Your task to perform on an android device: toggle priority inbox in the gmail app Image 0: 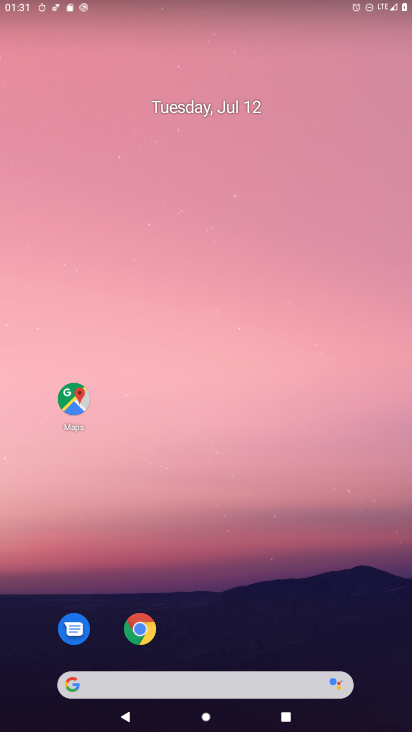
Step 0: drag from (25, 727) to (146, 2)
Your task to perform on an android device: toggle priority inbox in the gmail app Image 1: 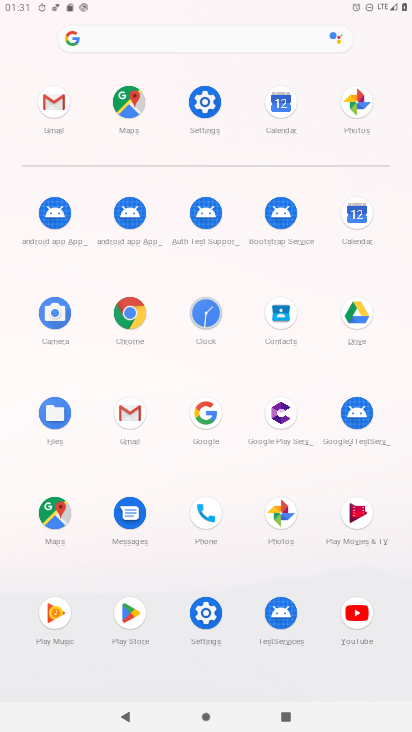
Step 1: click (49, 108)
Your task to perform on an android device: toggle priority inbox in the gmail app Image 2: 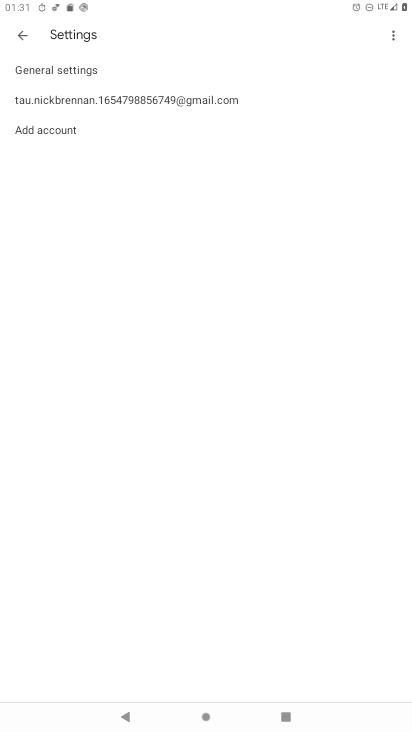
Step 2: click (19, 38)
Your task to perform on an android device: toggle priority inbox in the gmail app Image 3: 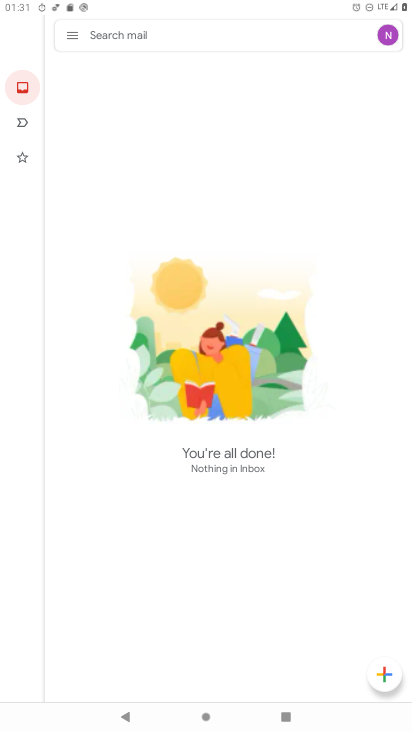
Step 3: click (66, 39)
Your task to perform on an android device: toggle priority inbox in the gmail app Image 4: 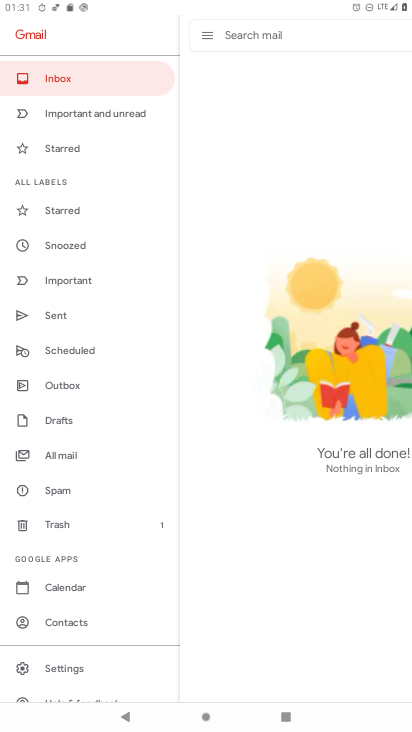
Step 4: click (61, 661)
Your task to perform on an android device: toggle priority inbox in the gmail app Image 5: 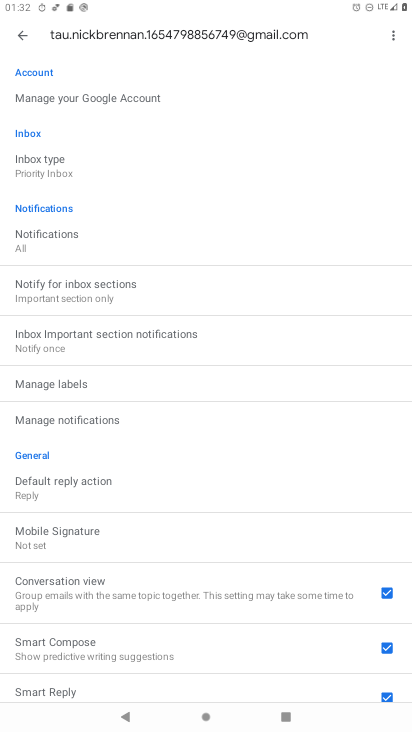
Step 5: click (63, 171)
Your task to perform on an android device: toggle priority inbox in the gmail app Image 6: 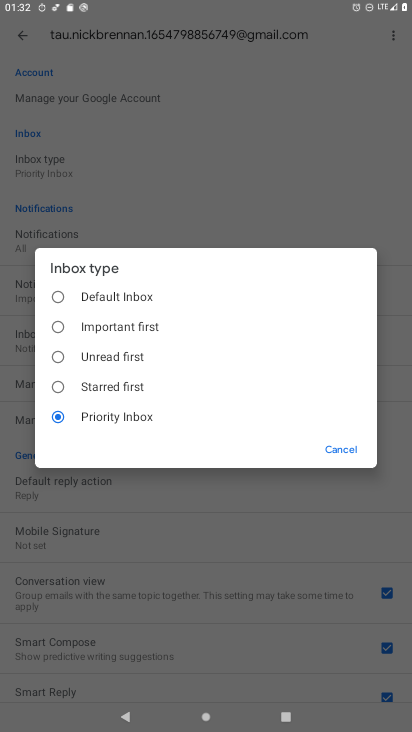
Step 6: click (140, 409)
Your task to perform on an android device: toggle priority inbox in the gmail app Image 7: 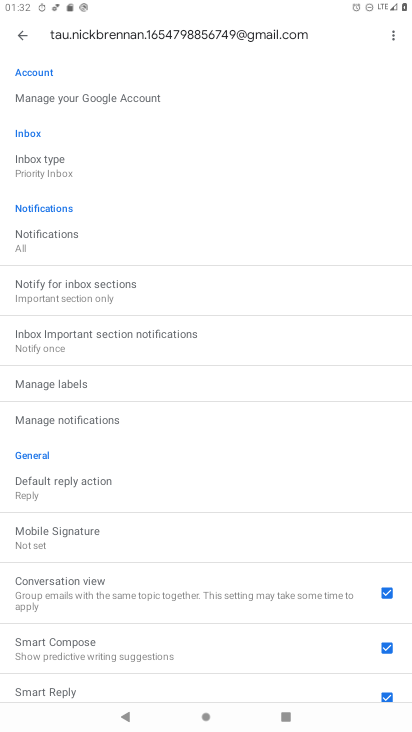
Step 7: task complete